Your task to perform on an android device: change keyboard looks Image 0: 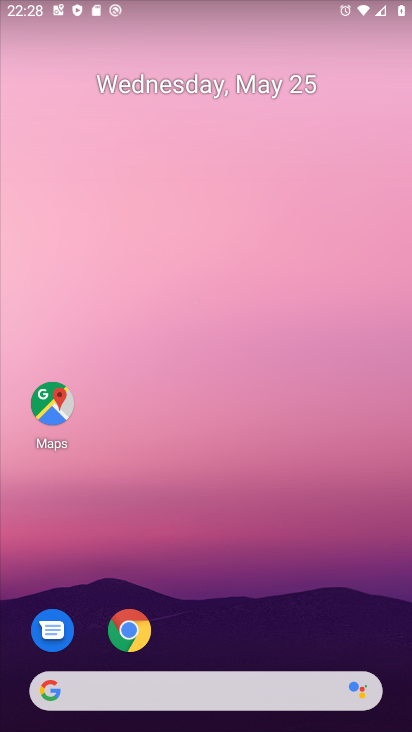
Step 0: drag from (231, 408) to (232, 216)
Your task to perform on an android device: change keyboard looks Image 1: 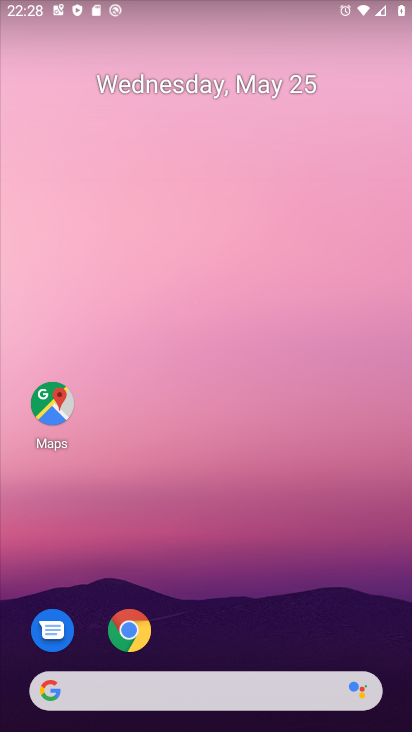
Step 1: drag from (216, 649) to (210, 96)
Your task to perform on an android device: change keyboard looks Image 2: 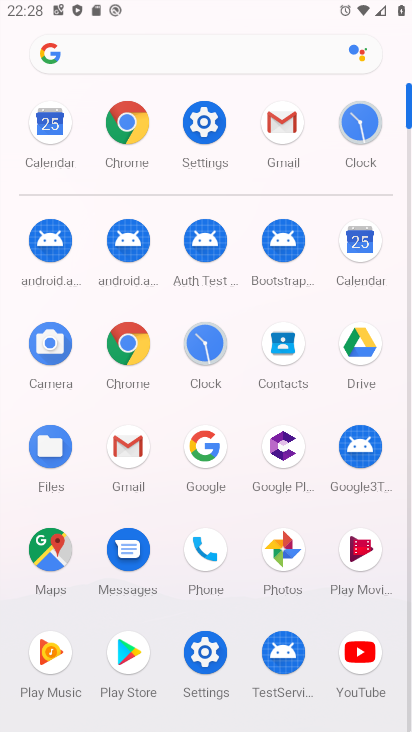
Step 2: click (206, 147)
Your task to perform on an android device: change keyboard looks Image 3: 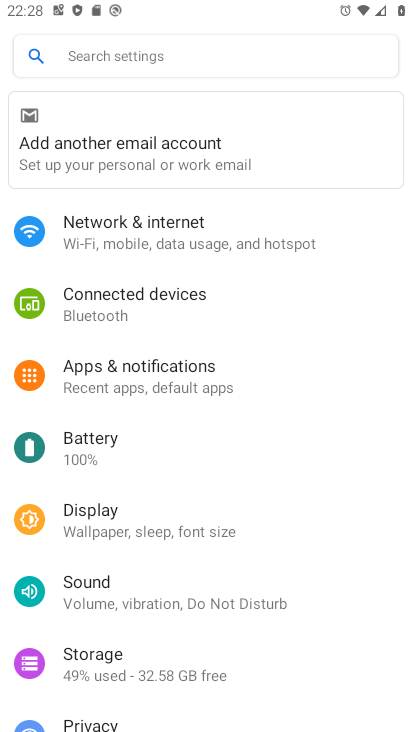
Step 3: drag from (221, 672) to (234, 276)
Your task to perform on an android device: change keyboard looks Image 4: 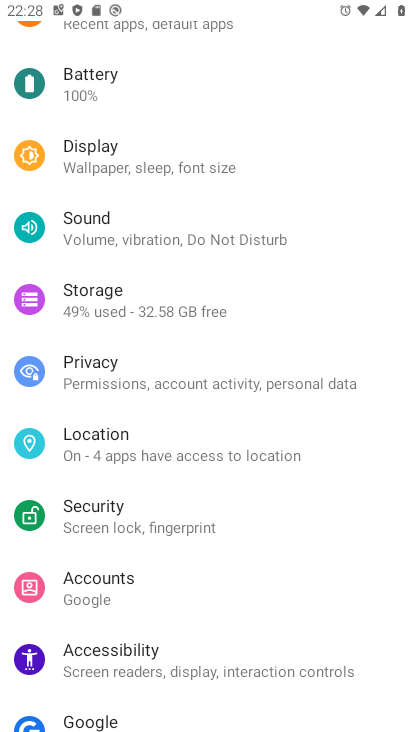
Step 4: drag from (234, 566) to (304, 244)
Your task to perform on an android device: change keyboard looks Image 5: 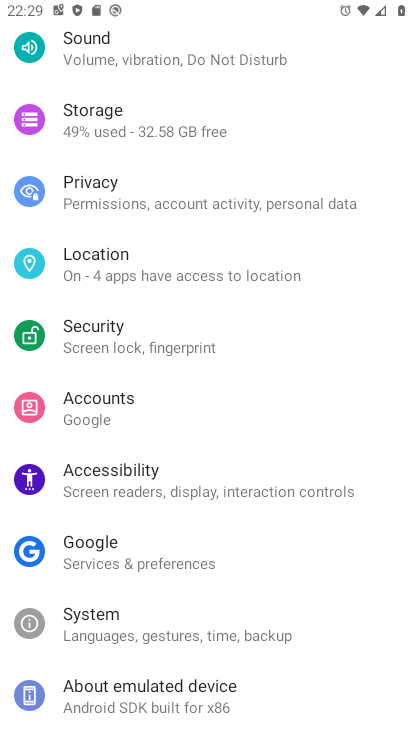
Step 5: drag from (231, 683) to (243, 345)
Your task to perform on an android device: change keyboard looks Image 6: 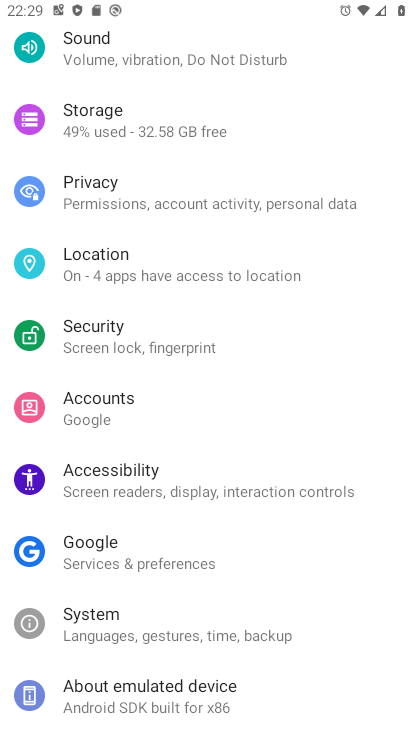
Step 6: click (180, 640)
Your task to perform on an android device: change keyboard looks Image 7: 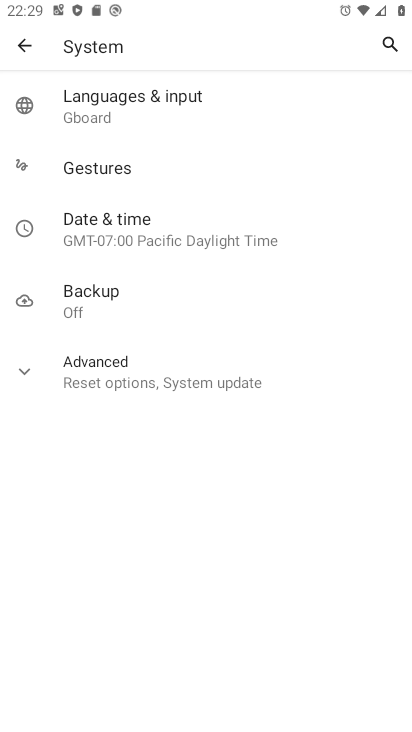
Step 7: click (141, 120)
Your task to perform on an android device: change keyboard looks Image 8: 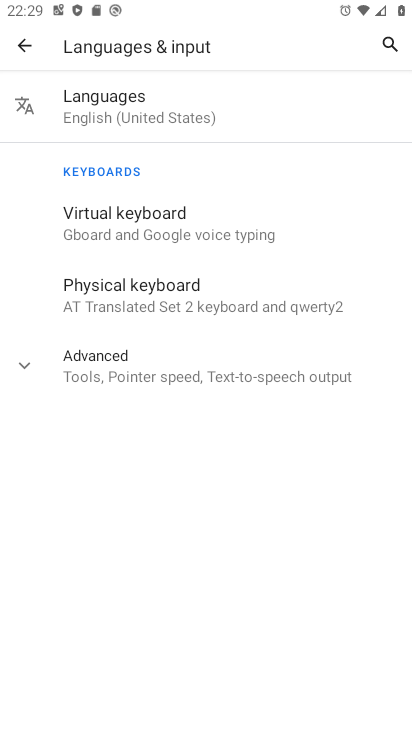
Step 8: click (159, 221)
Your task to perform on an android device: change keyboard looks Image 9: 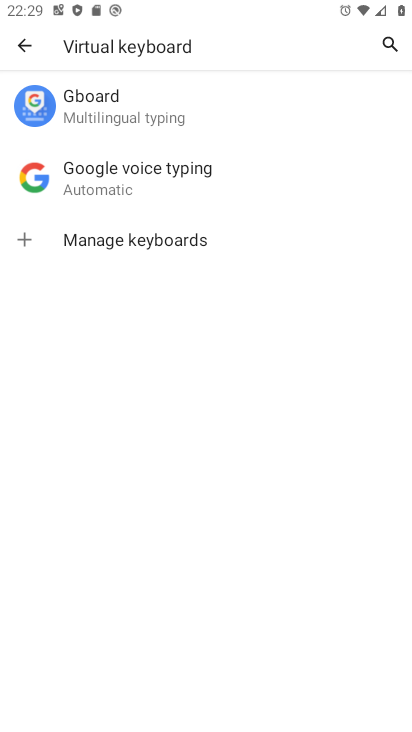
Step 9: click (145, 121)
Your task to perform on an android device: change keyboard looks Image 10: 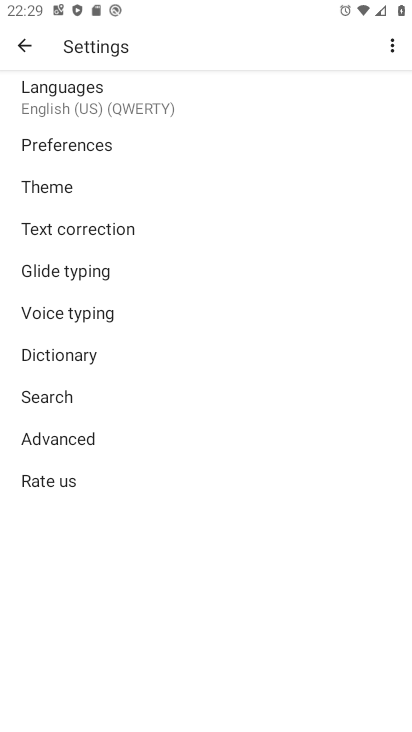
Step 10: click (111, 183)
Your task to perform on an android device: change keyboard looks Image 11: 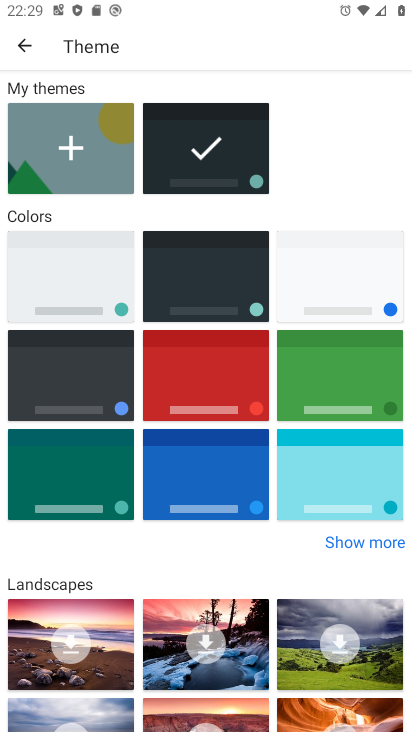
Step 11: click (300, 290)
Your task to perform on an android device: change keyboard looks Image 12: 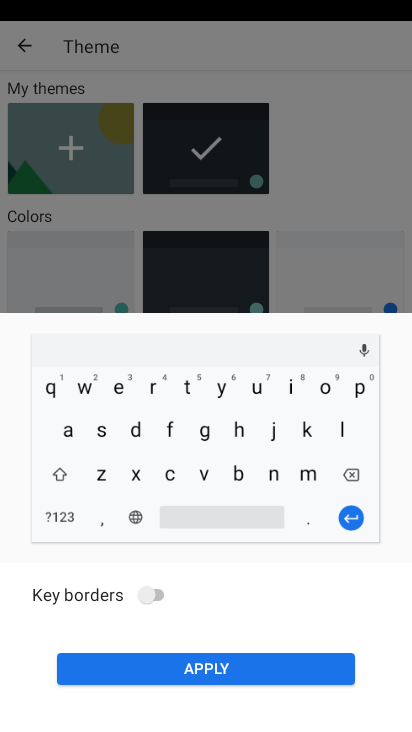
Step 12: click (219, 663)
Your task to perform on an android device: change keyboard looks Image 13: 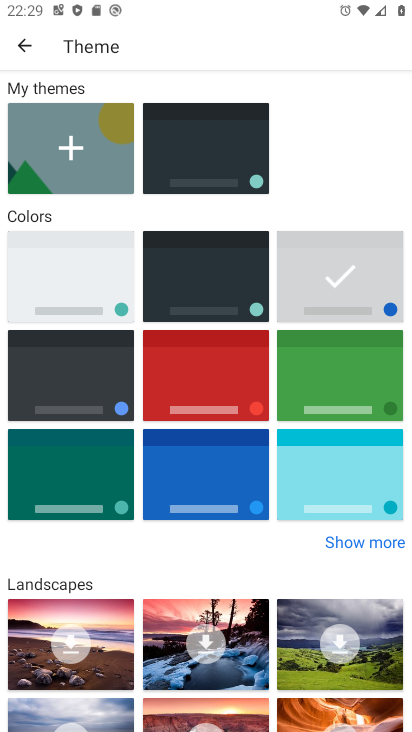
Step 13: task complete